Your task to perform on an android device: toggle notification dots Image 0: 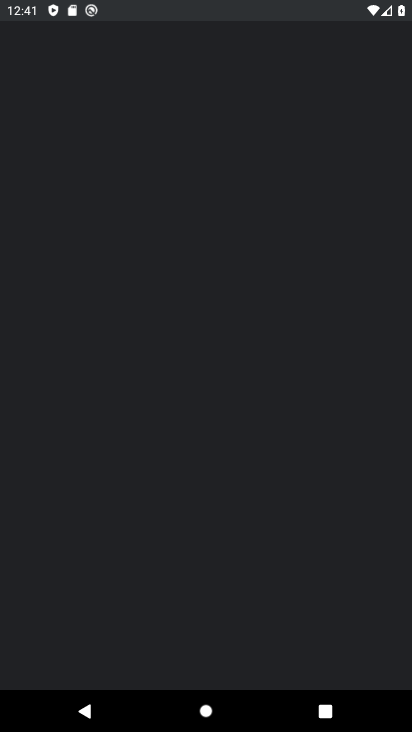
Step 0: drag from (174, 6) to (201, 461)
Your task to perform on an android device: toggle notification dots Image 1: 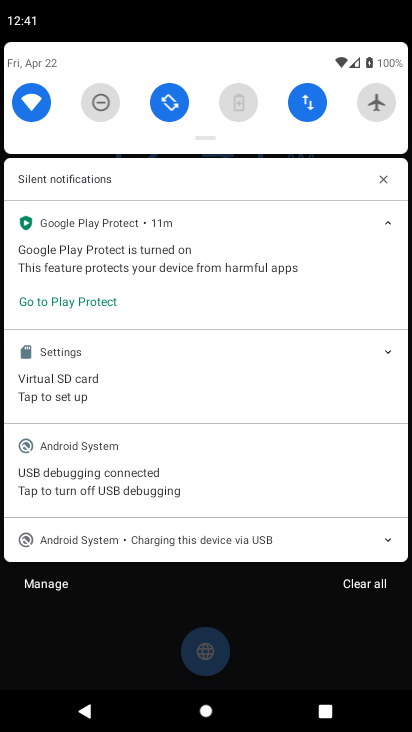
Step 1: click (111, 611)
Your task to perform on an android device: toggle notification dots Image 2: 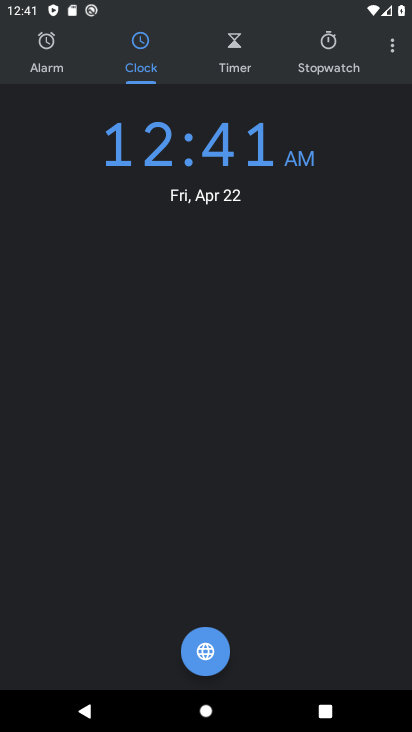
Step 2: press back button
Your task to perform on an android device: toggle notification dots Image 3: 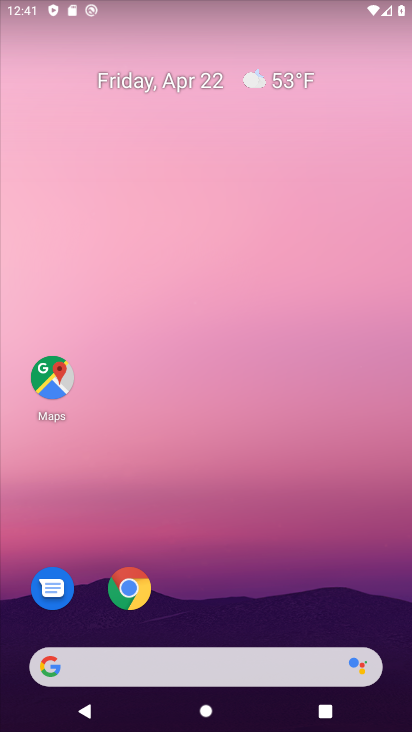
Step 3: drag from (234, 521) to (282, 92)
Your task to perform on an android device: toggle notification dots Image 4: 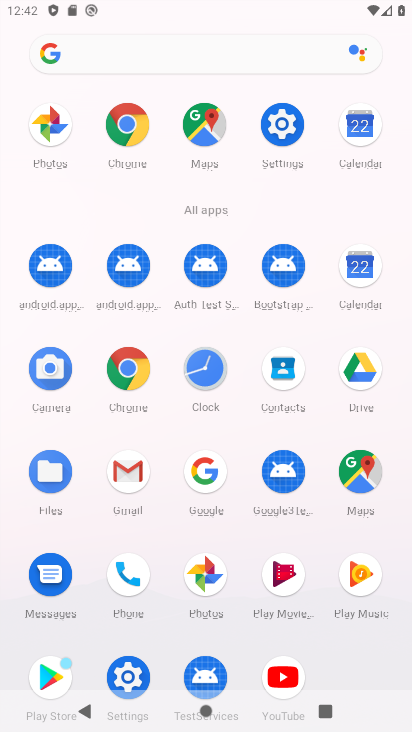
Step 4: click (281, 125)
Your task to perform on an android device: toggle notification dots Image 5: 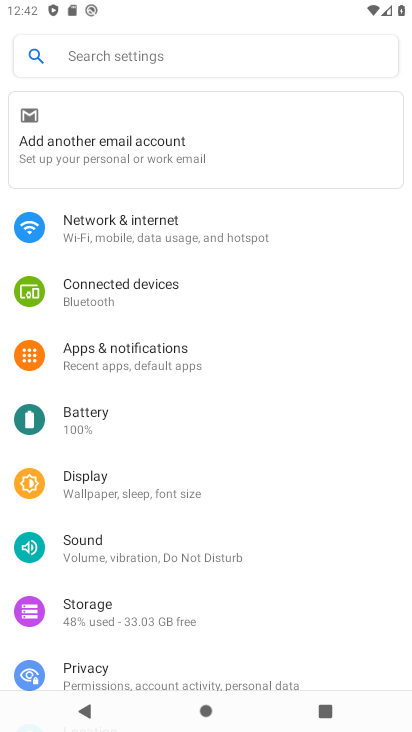
Step 5: click (133, 360)
Your task to perform on an android device: toggle notification dots Image 6: 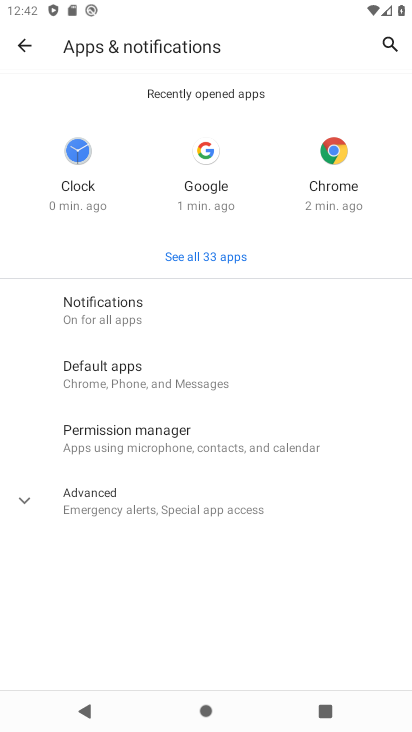
Step 6: click (152, 307)
Your task to perform on an android device: toggle notification dots Image 7: 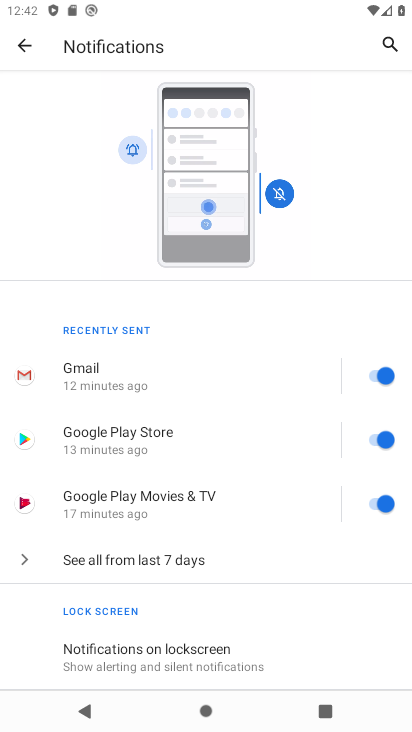
Step 7: drag from (199, 648) to (276, 64)
Your task to perform on an android device: toggle notification dots Image 8: 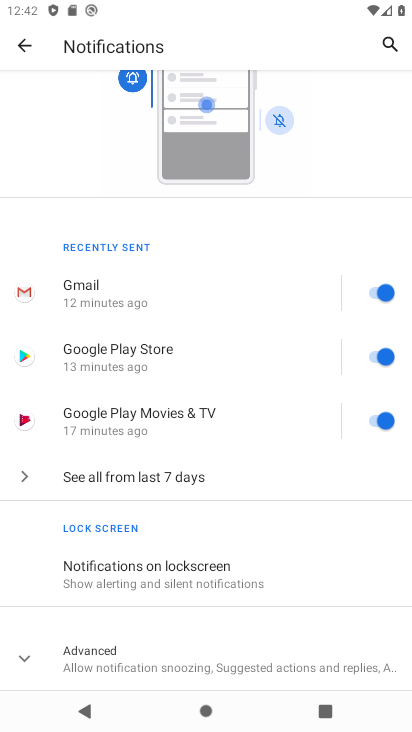
Step 8: click (155, 651)
Your task to perform on an android device: toggle notification dots Image 9: 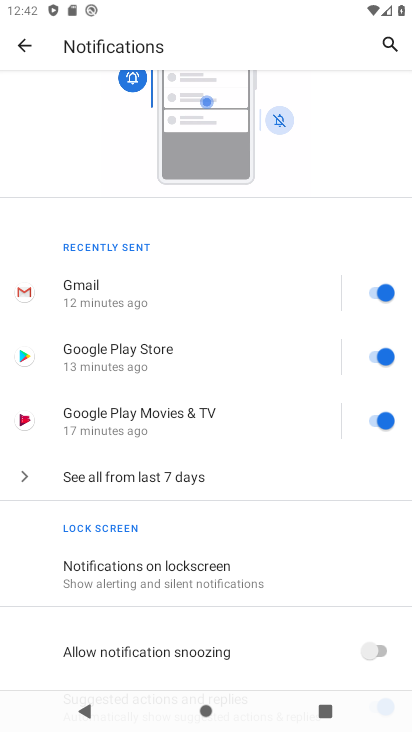
Step 9: drag from (218, 612) to (269, 242)
Your task to perform on an android device: toggle notification dots Image 10: 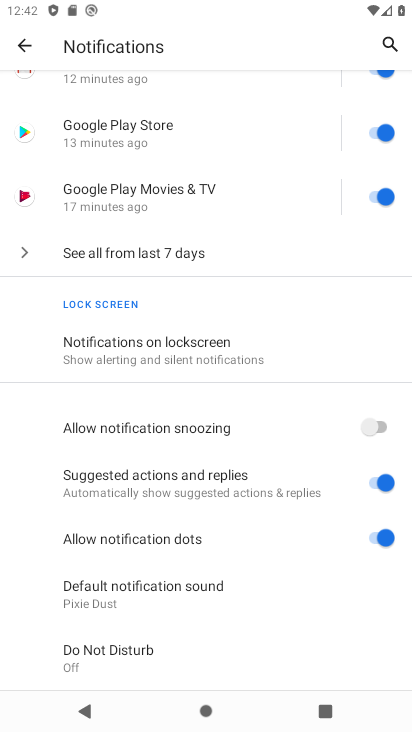
Step 10: click (380, 539)
Your task to perform on an android device: toggle notification dots Image 11: 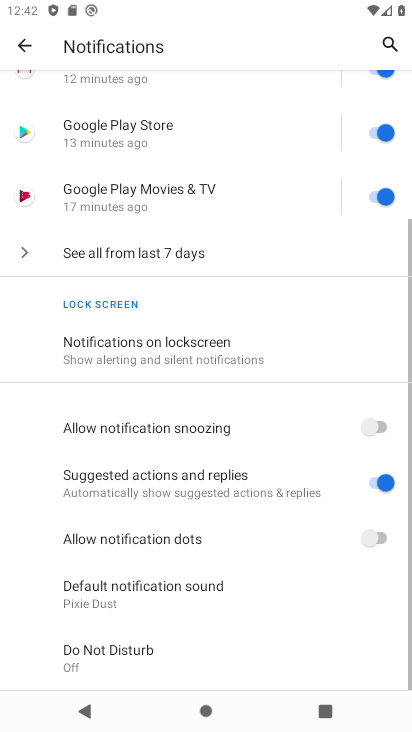
Step 11: task complete